Your task to perform on an android device: Open Chrome and go to the settings page Image 0: 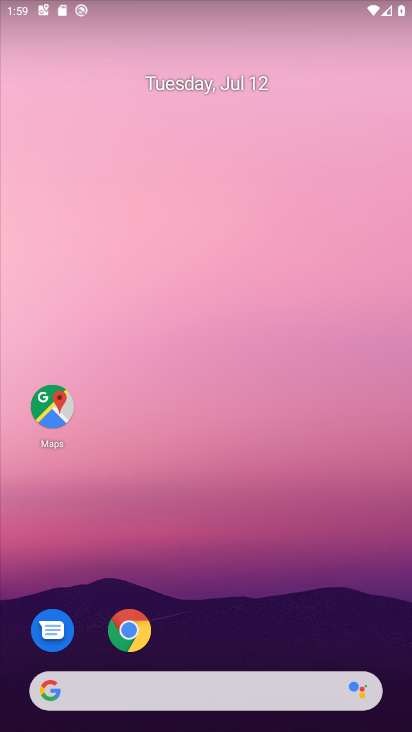
Step 0: drag from (187, 703) to (260, 195)
Your task to perform on an android device: Open Chrome and go to the settings page Image 1: 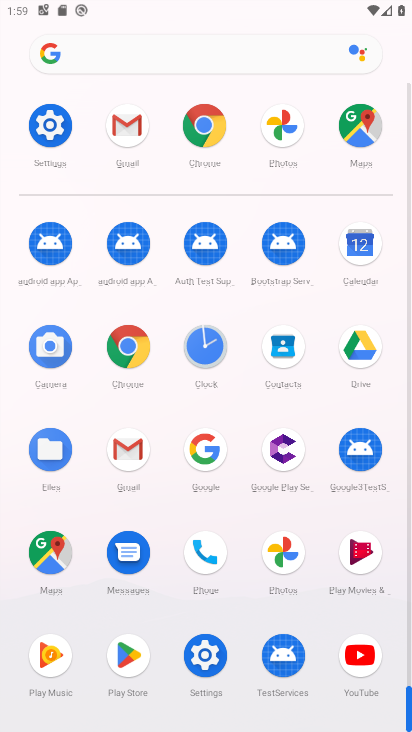
Step 1: click (192, 135)
Your task to perform on an android device: Open Chrome and go to the settings page Image 2: 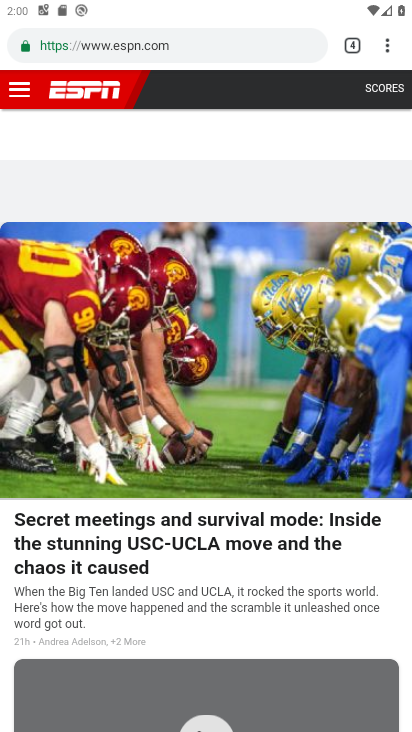
Step 2: click (388, 48)
Your task to perform on an android device: Open Chrome and go to the settings page Image 3: 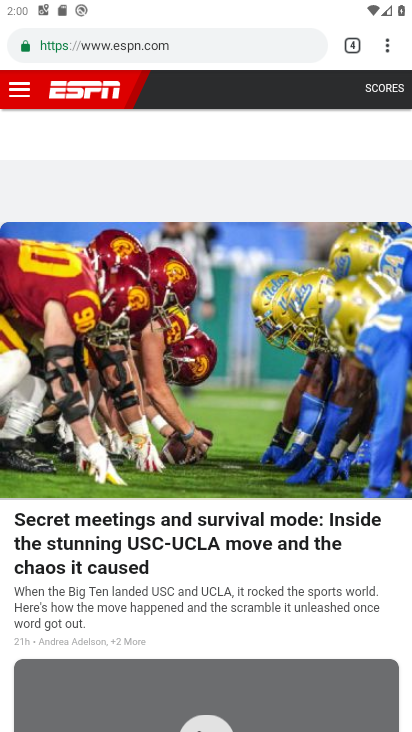
Step 3: click (384, 49)
Your task to perform on an android device: Open Chrome and go to the settings page Image 4: 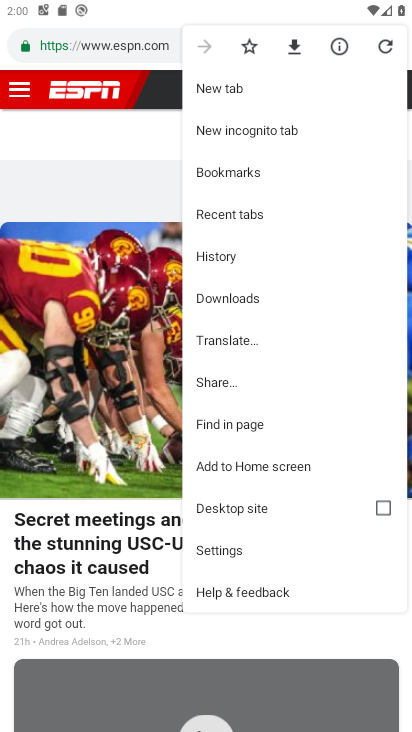
Step 4: click (244, 551)
Your task to perform on an android device: Open Chrome and go to the settings page Image 5: 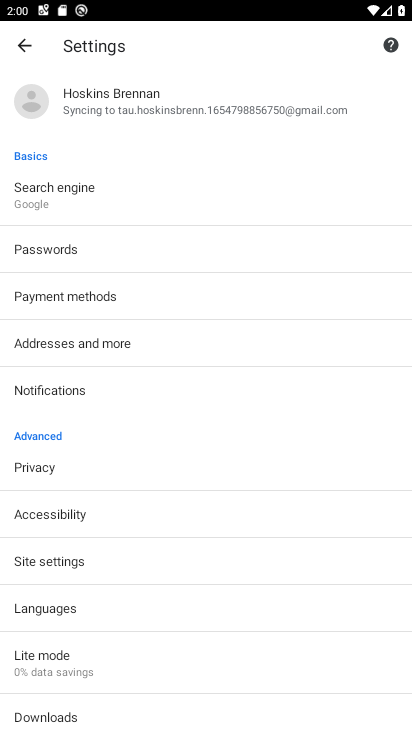
Step 5: task complete